Your task to perform on an android device: Search for sushi restaurants on Maps Image 0: 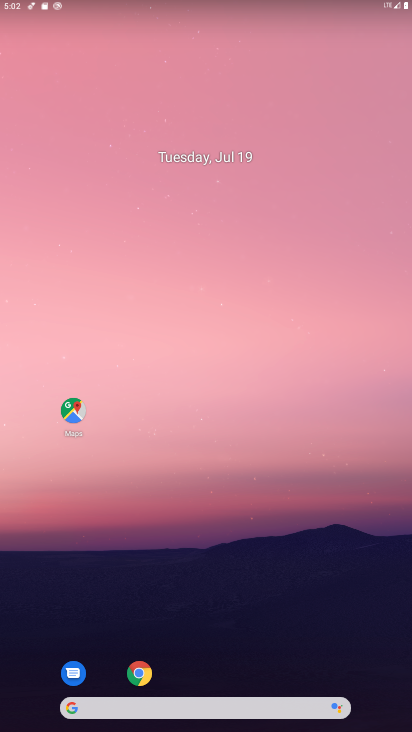
Step 0: press home button
Your task to perform on an android device: Search for sushi restaurants on Maps Image 1: 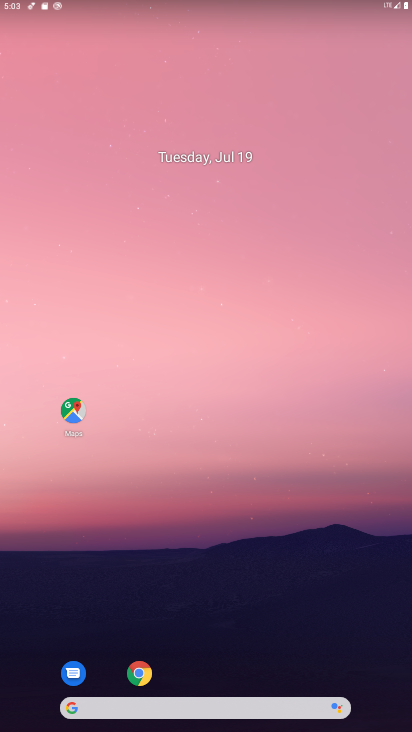
Step 1: click (69, 402)
Your task to perform on an android device: Search for sushi restaurants on Maps Image 2: 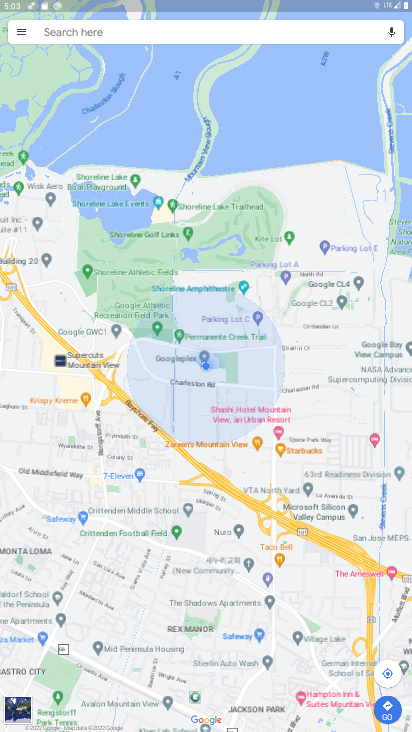
Step 2: press home button
Your task to perform on an android device: Search for sushi restaurants on Maps Image 3: 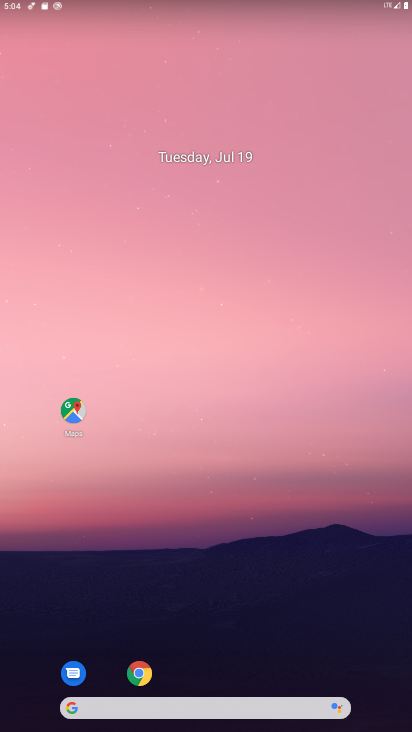
Step 3: click (70, 405)
Your task to perform on an android device: Search for sushi restaurants on Maps Image 4: 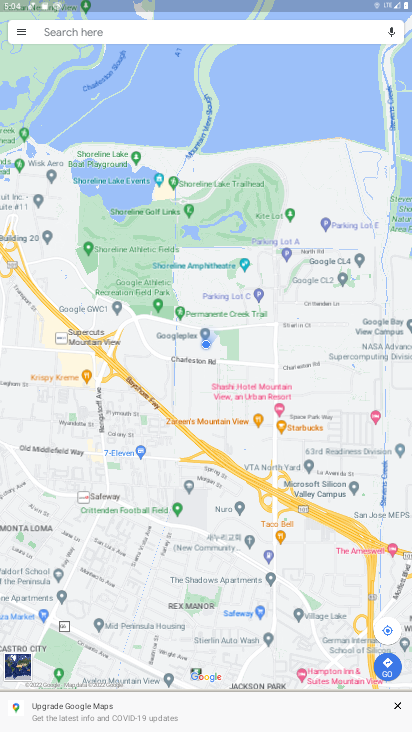
Step 4: click (52, 26)
Your task to perform on an android device: Search for sushi restaurants on Maps Image 5: 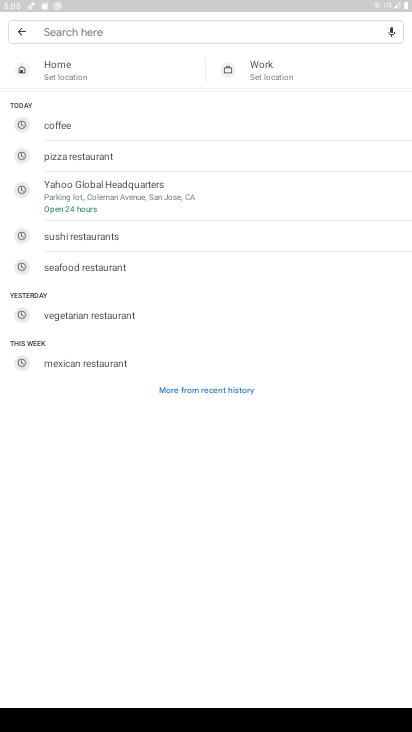
Step 5: click (140, 238)
Your task to perform on an android device: Search for sushi restaurants on Maps Image 6: 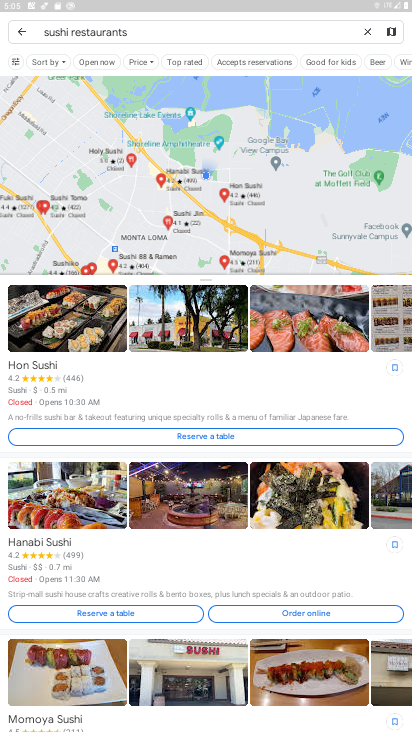
Step 6: task complete